Your task to perform on an android device: Open accessibility settings Image 0: 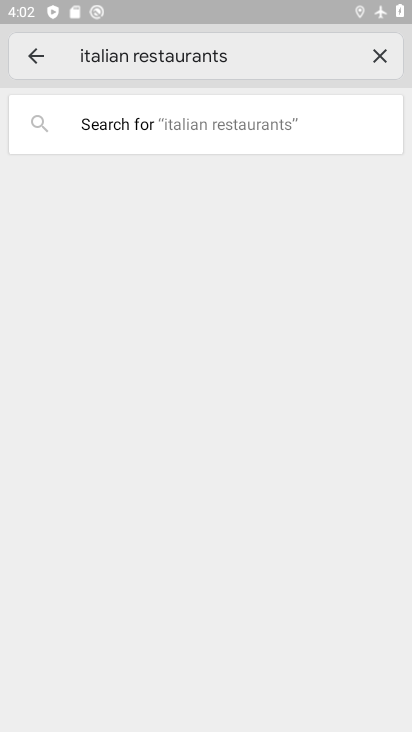
Step 0: press home button
Your task to perform on an android device: Open accessibility settings Image 1: 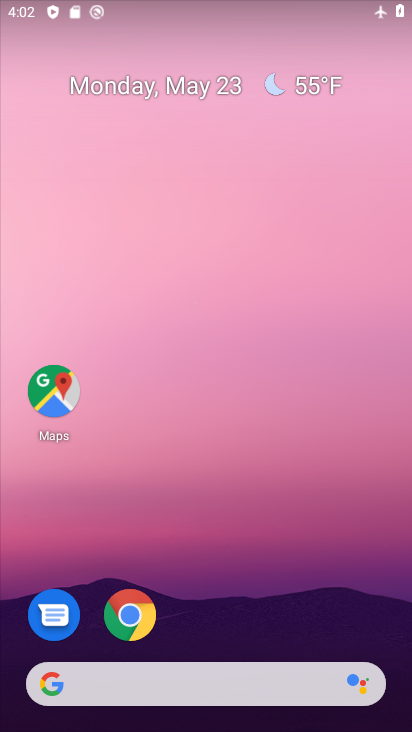
Step 1: drag from (368, 628) to (375, 215)
Your task to perform on an android device: Open accessibility settings Image 2: 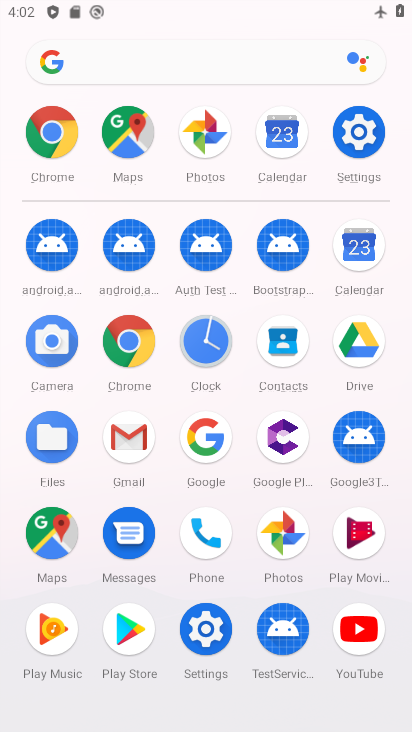
Step 2: click (216, 641)
Your task to perform on an android device: Open accessibility settings Image 3: 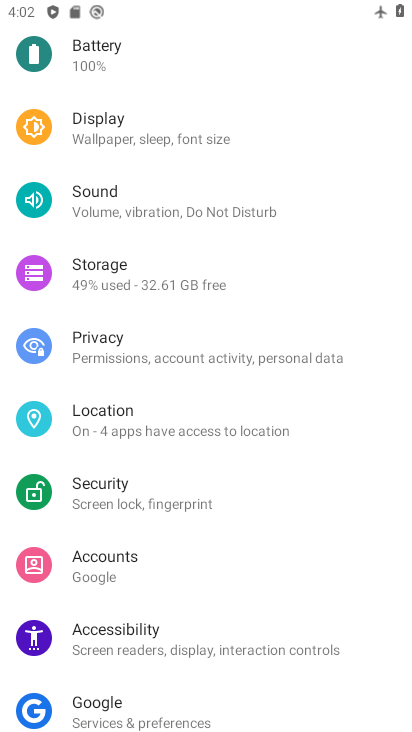
Step 3: drag from (317, 649) to (335, 509)
Your task to perform on an android device: Open accessibility settings Image 4: 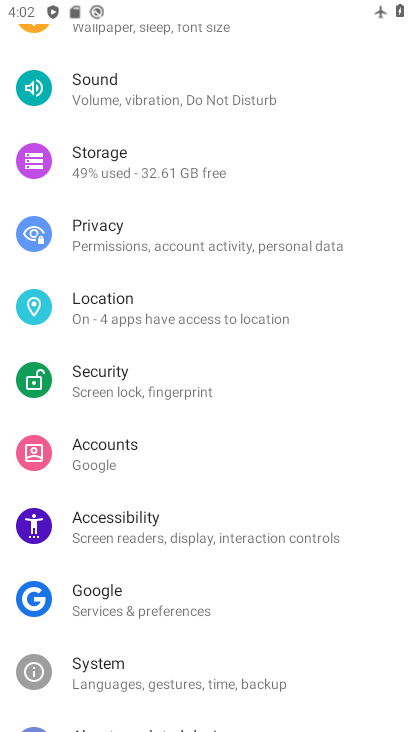
Step 4: drag from (341, 668) to (361, 539)
Your task to perform on an android device: Open accessibility settings Image 5: 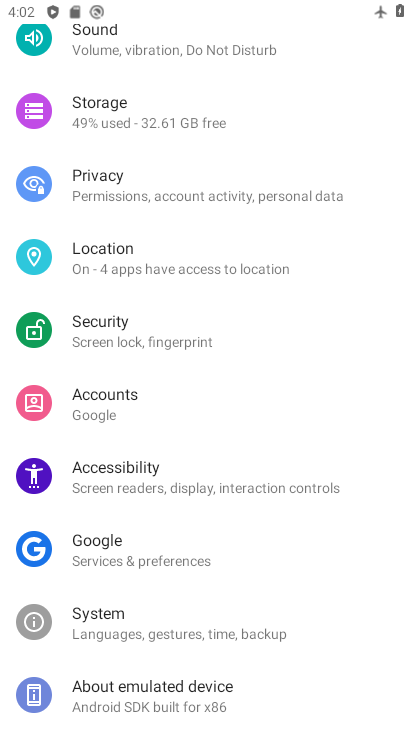
Step 5: drag from (387, 342) to (372, 460)
Your task to perform on an android device: Open accessibility settings Image 6: 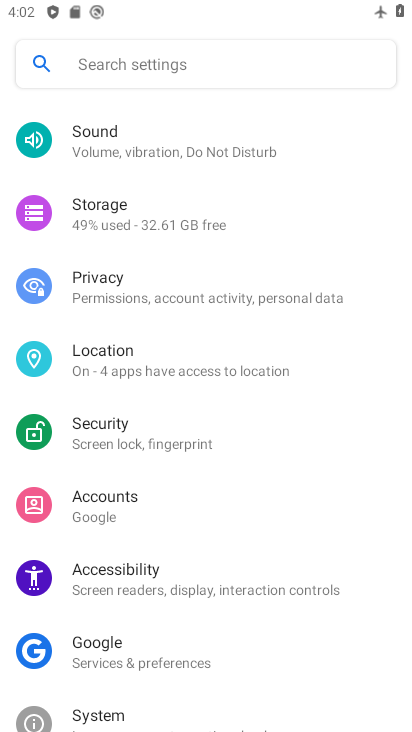
Step 6: drag from (365, 343) to (361, 420)
Your task to perform on an android device: Open accessibility settings Image 7: 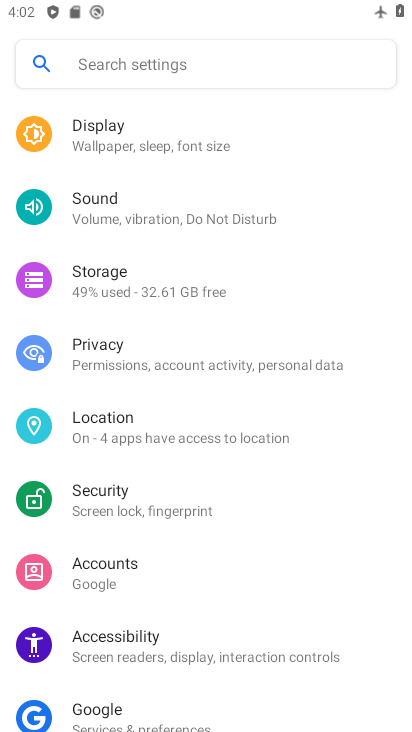
Step 7: drag from (361, 330) to (361, 435)
Your task to perform on an android device: Open accessibility settings Image 8: 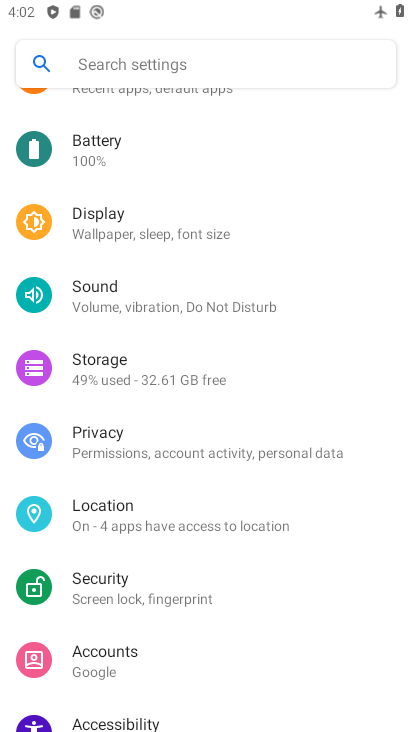
Step 8: drag from (353, 326) to (357, 434)
Your task to perform on an android device: Open accessibility settings Image 9: 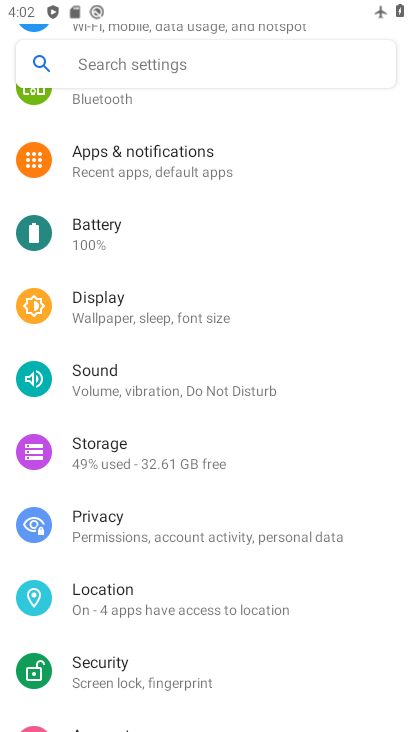
Step 9: drag from (355, 313) to (354, 419)
Your task to perform on an android device: Open accessibility settings Image 10: 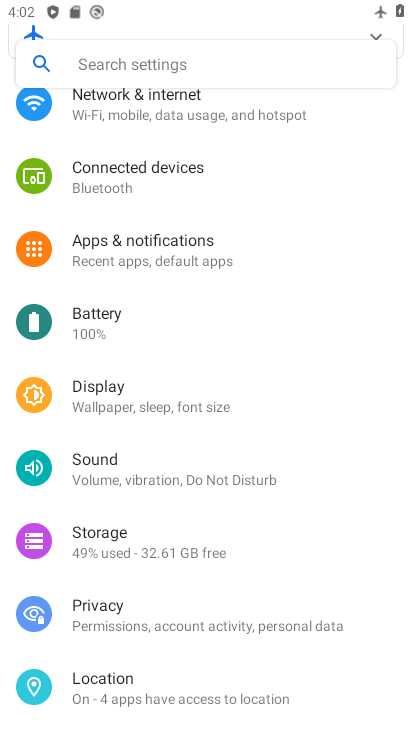
Step 10: drag from (352, 281) to (351, 399)
Your task to perform on an android device: Open accessibility settings Image 11: 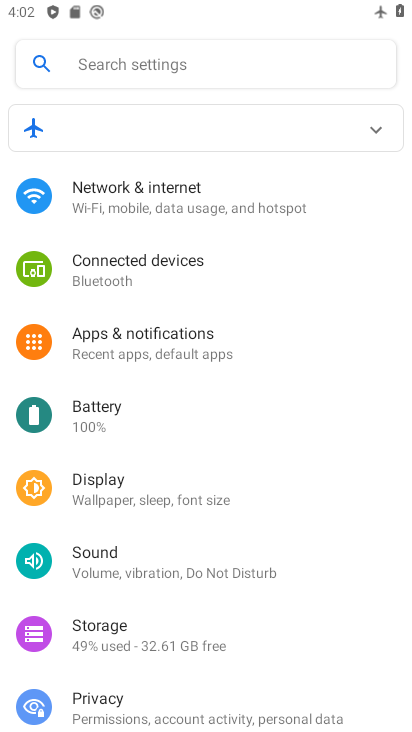
Step 11: drag from (347, 280) to (345, 419)
Your task to perform on an android device: Open accessibility settings Image 12: 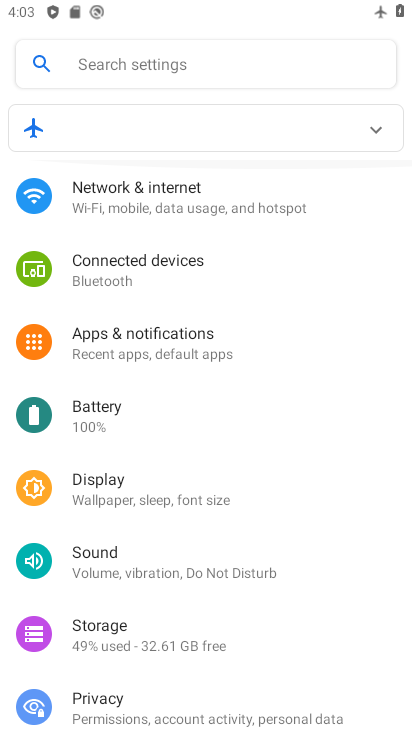
Step 12: drag from (350, 522) to (354, 413)
Your task to perform on an android device: Open accessibility settings Image 13: 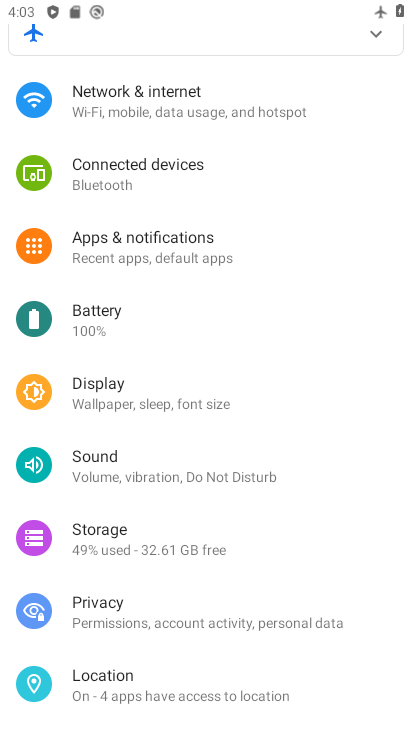
Step 13: drag from (340, 513) to (352, 409)
Your task to perform on an android device: Open accessibility settings Image 14: 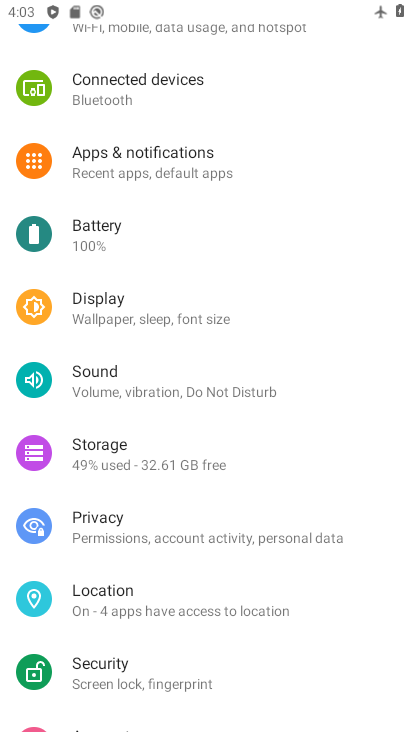
Step 14: drag from (346, 555) to (350, 450)
Your task to perform on an android device: Open accessibility settings Image 15: 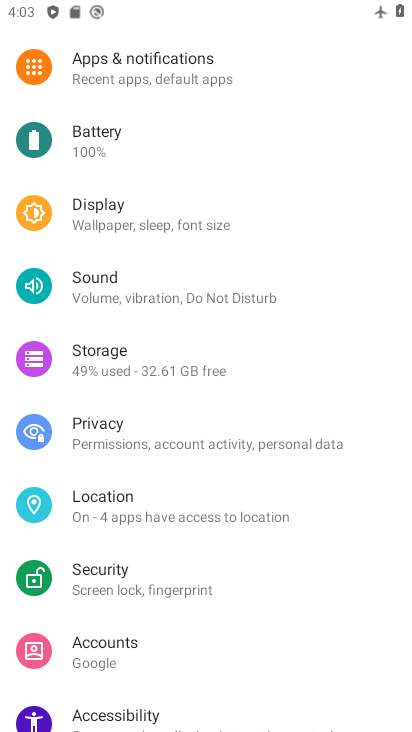
Step 15: drag from (335, 559) to (335, 478)
Your task to perform on an android device: Open accessibility settings Image 16: 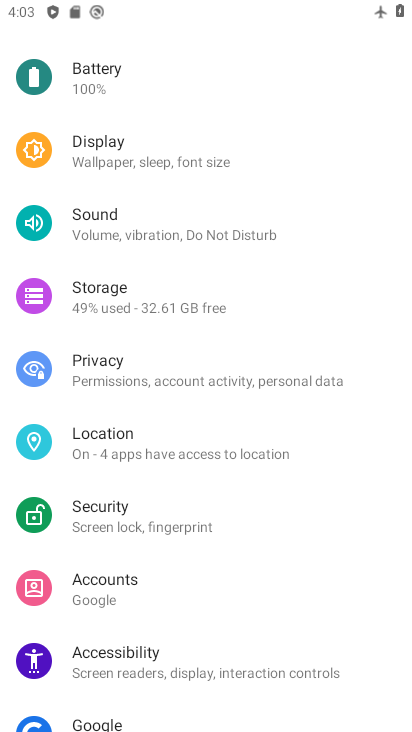
Step 16: drag from (321, 582) to (318, 474)
Your task to perform on an android device: Open accessibility settings Image 17: 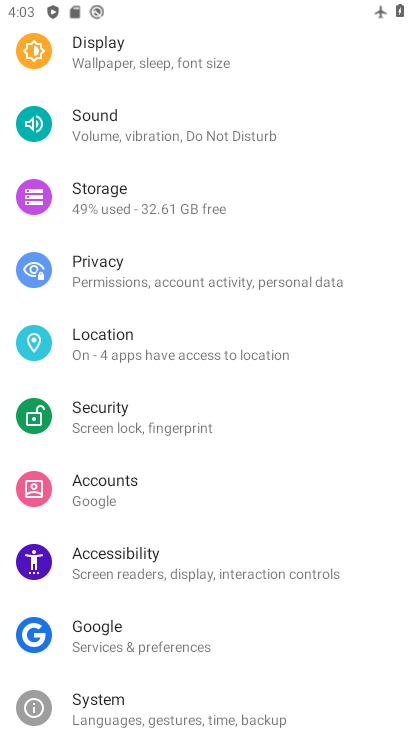
Step 17: drag from (309, 622) to (313, 491)
Your task to perform on an android device: Open accessibility settings Image 18: 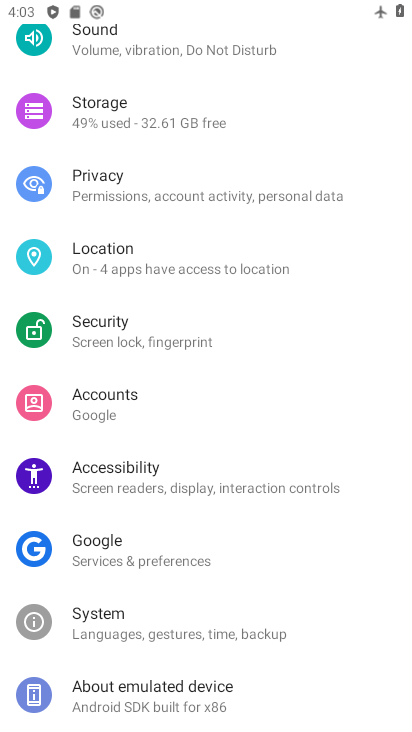
Step 18: drag from (306, 579) to (325, 424)
Your task to perform on an android device: Open accessibility settings Image 19: 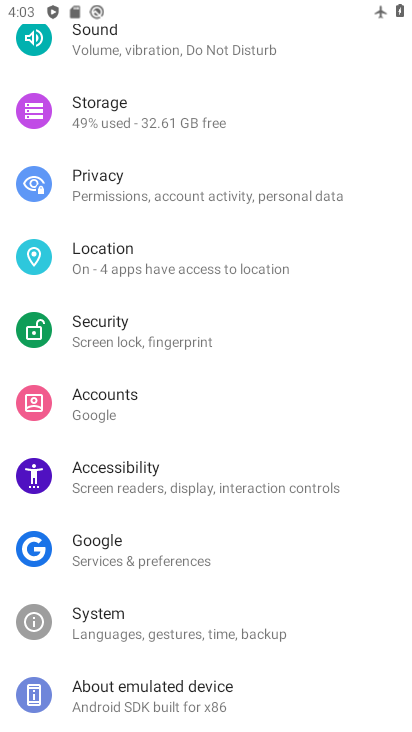
Step 19: click (304, 491)
Your task to perform on an android device: Open accessibility settings Image 20: 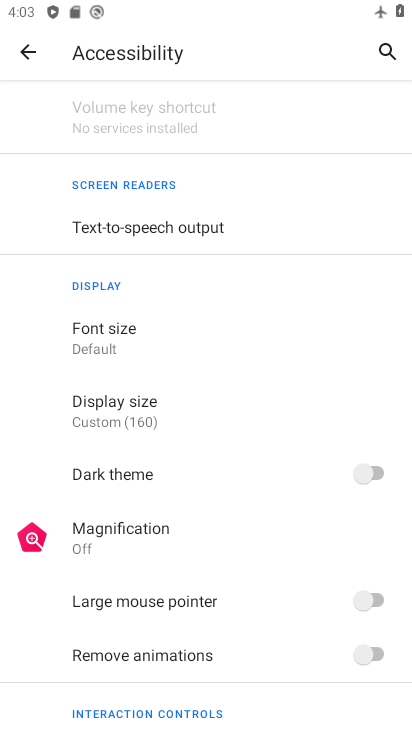
Step 20: task complete